Your task to perform on an android device: toggle improve location accuracy Image 0: 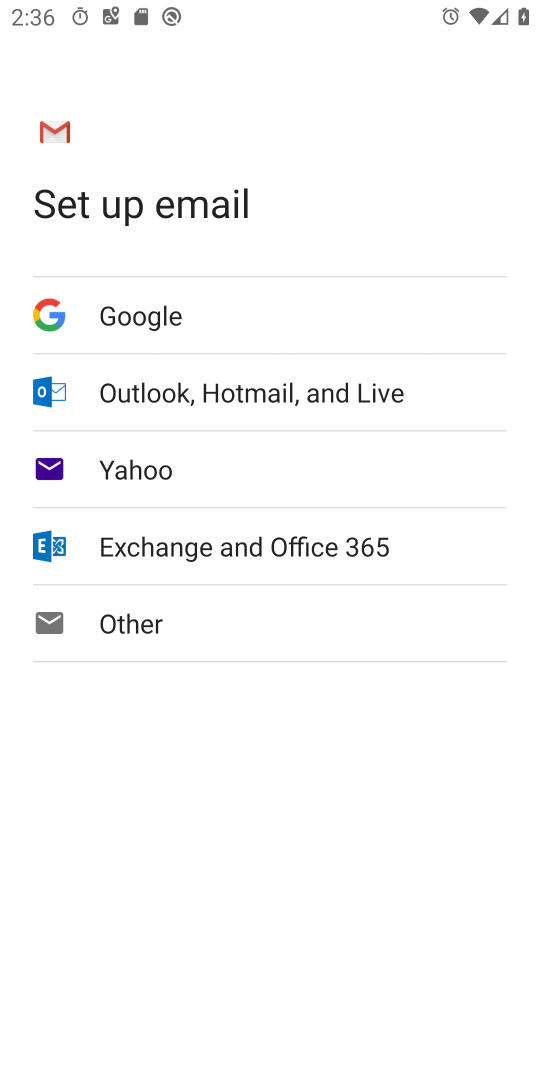
Step 0: press home button
Your task to perform on an android device: toggle improve location accuracy Image 1: 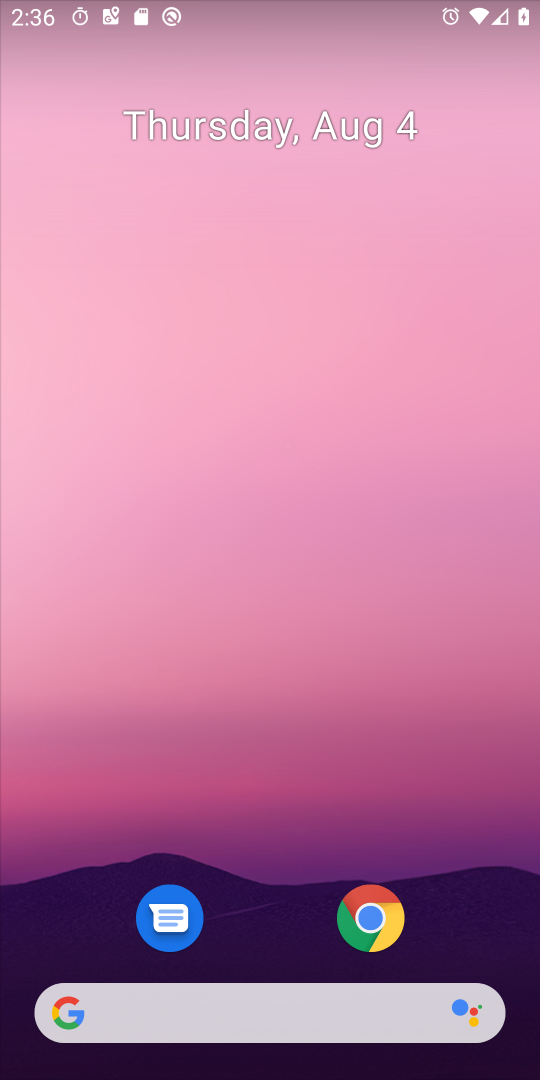
Step 1: drag from (237, 876) to (237, 441)
Your task to perform on an android device: toggle improve location accuracy Image 2: 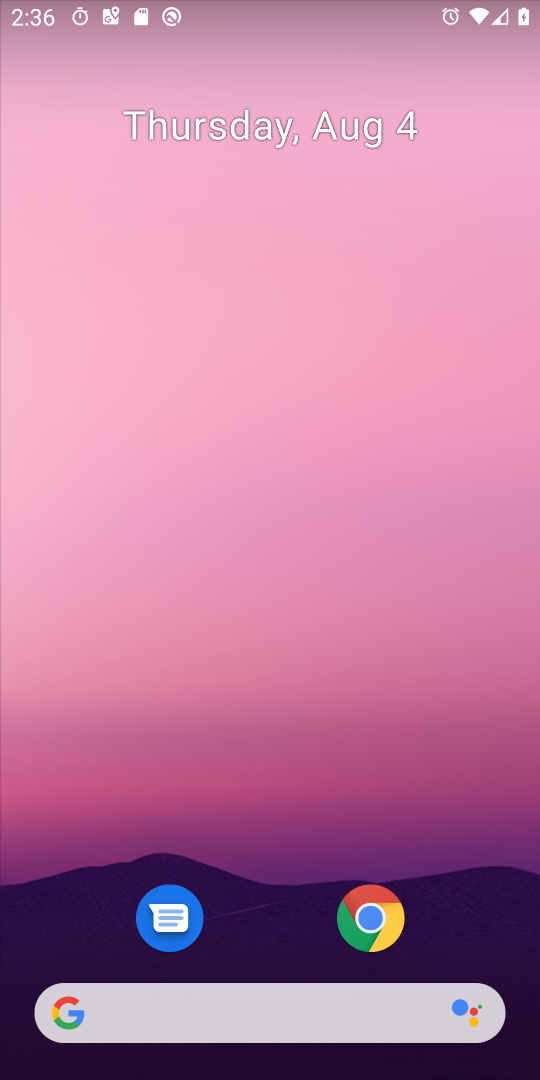
Step 2: drag from (261, 942) to (267, 310)
Your task to perform on an android device: toggle improve location accuracy Image 3: 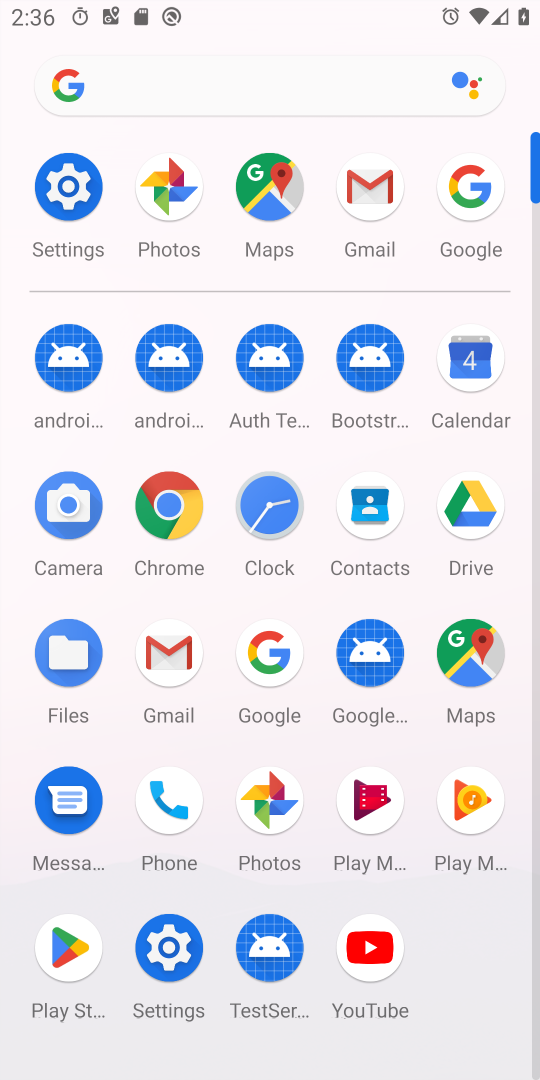
Step 3: click (64, 200)
Your task to perform on an android device: toggle improve location accuracy Image 4: 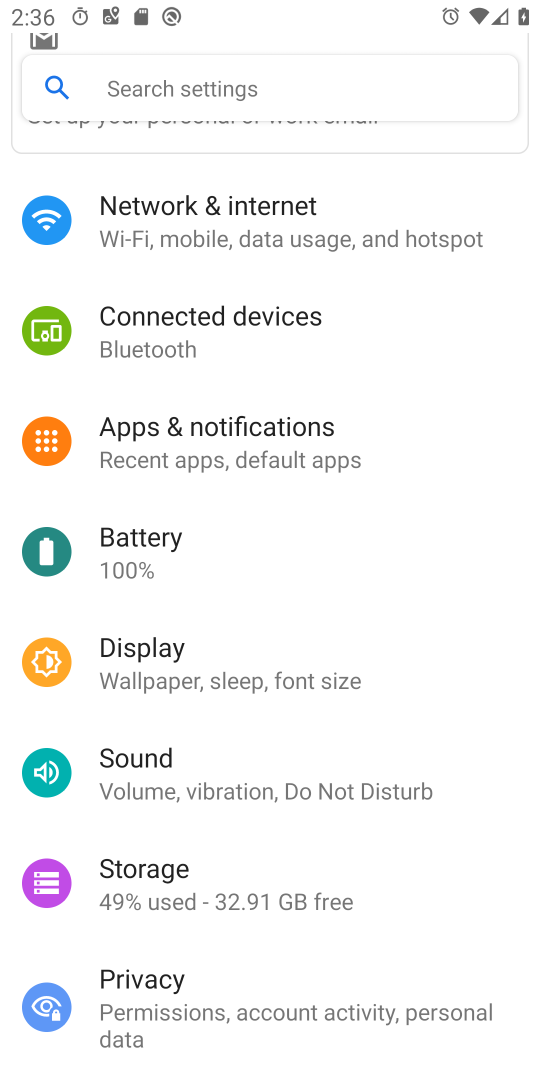
Step 4: drag from (242, 983) to (272, 601)
Your task to perform on an android device: toggle improve location accuracy Image 5: 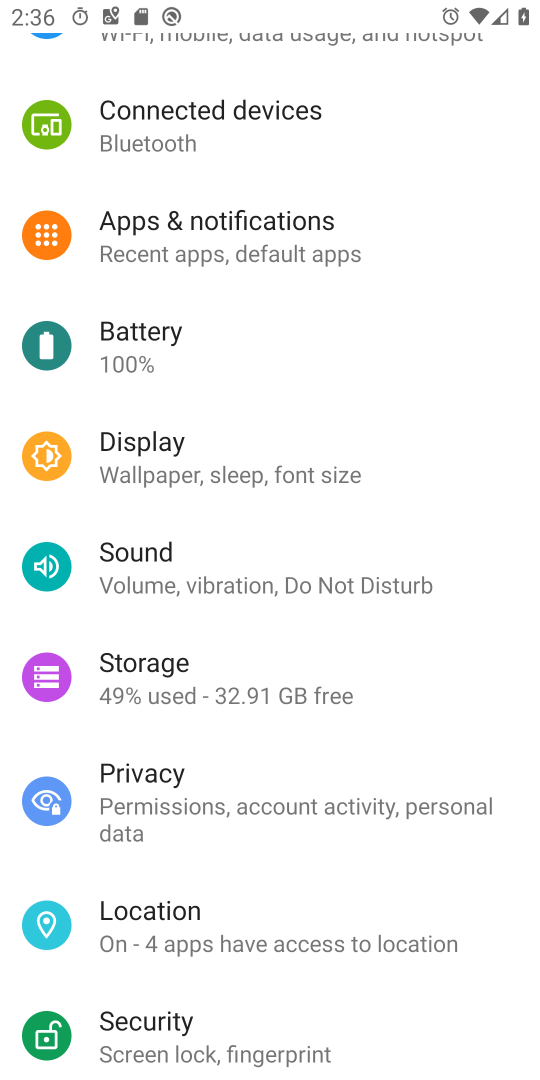
Step 5: click (245, 907)
Your task to perform on an android device: toggle improve location accuracy Image 6: 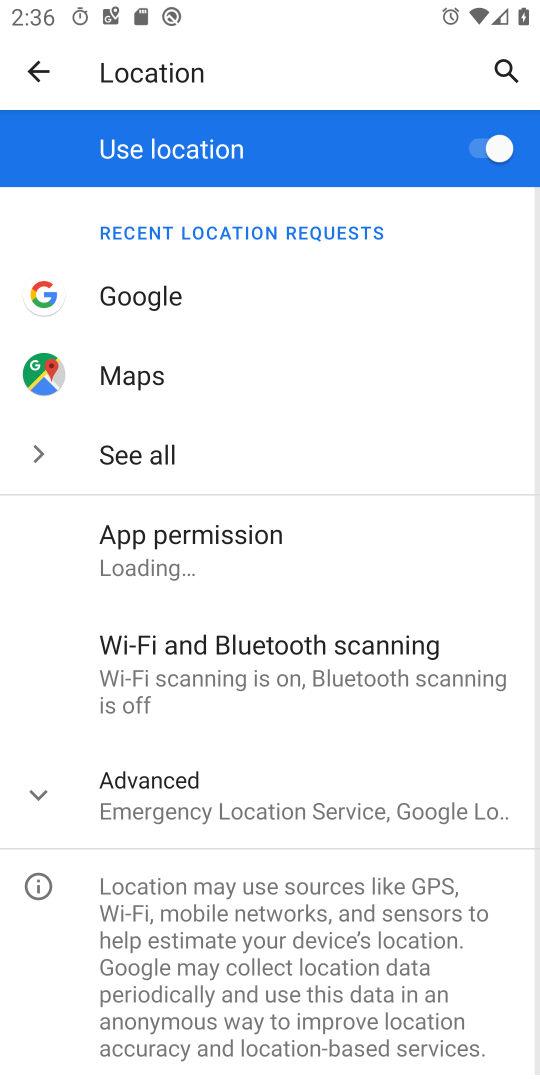
Step 6: click (250, 835)
Your task to perform on an android device: toggle improve location accuracy Image 7: 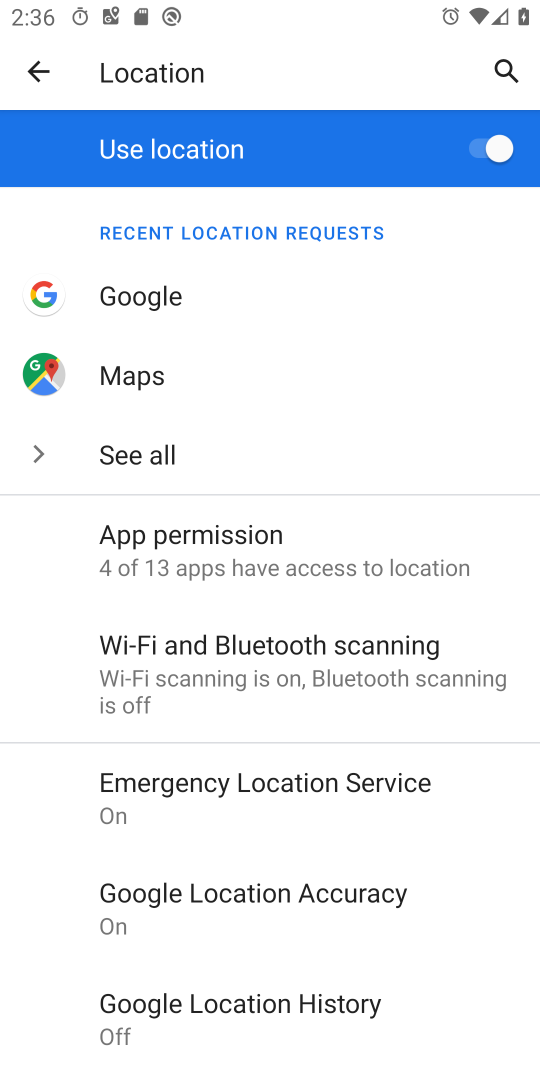
Step 7: click (285, 913)
Your task to perform on an android device: toggle improve location accuracy Image 8: 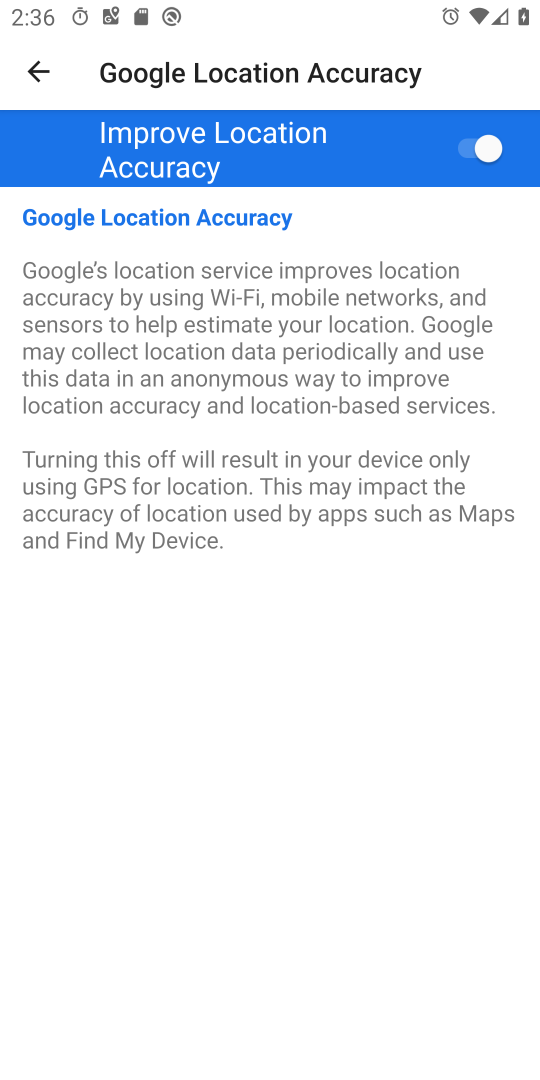
Step 8: click (465, 149)
Your task to perform on an android device: toggle improve location accuracy Image 9: 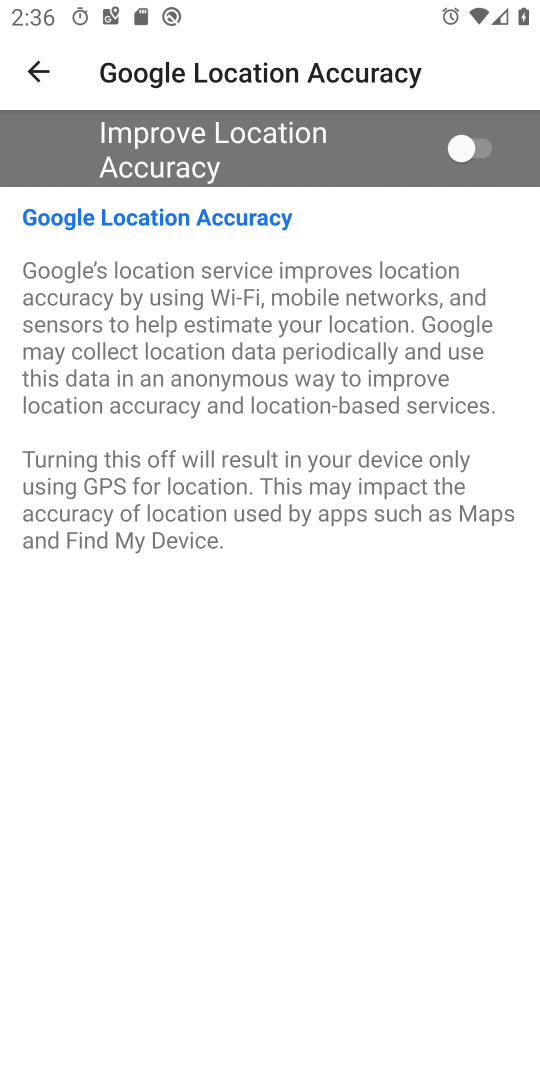
Step 9: task complete